Your task to perform on an android device: Open privacy settings Image 0: 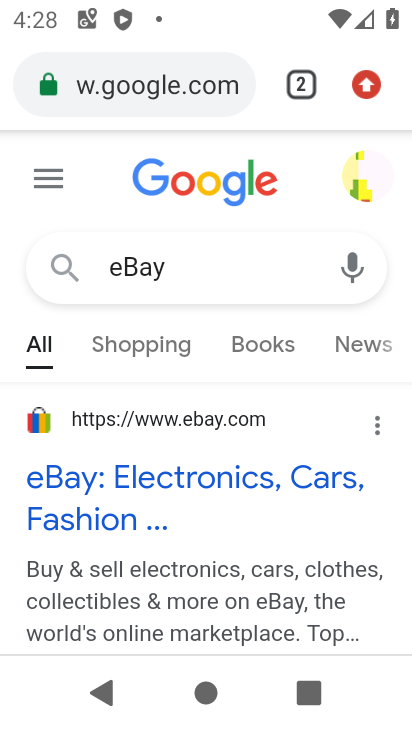
Step 0: press home button
Your task to perform on an android device: Open privacy settings Image 1: 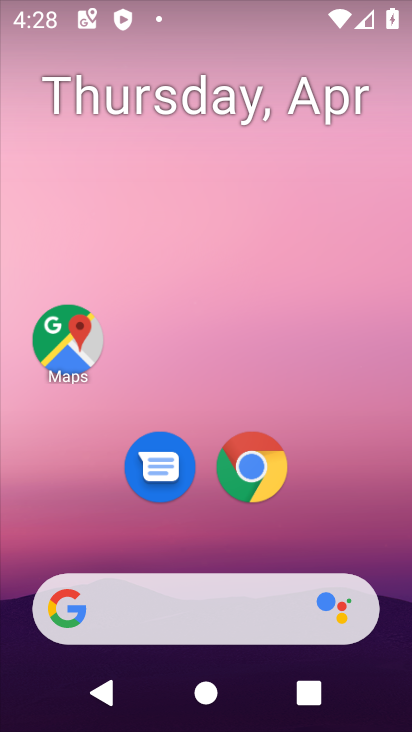
Step 1: drag from (230, 521) to (265, 1)
Your task to perform on an android device: Open privacy settings Image 2: 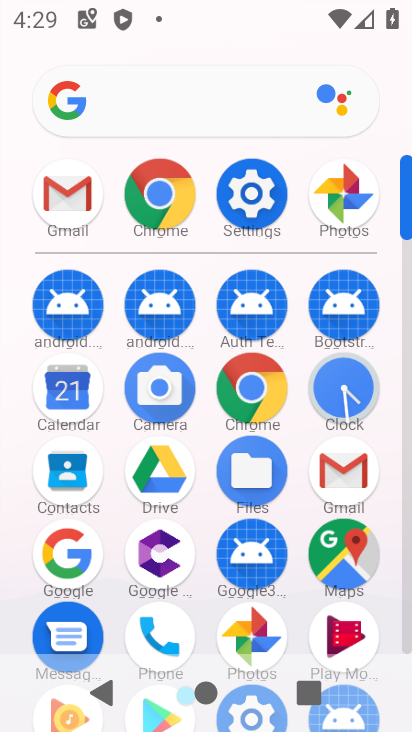
Step 2: click (258, 194)
Your task to perform on an android device: Open privacy settings Image 3: 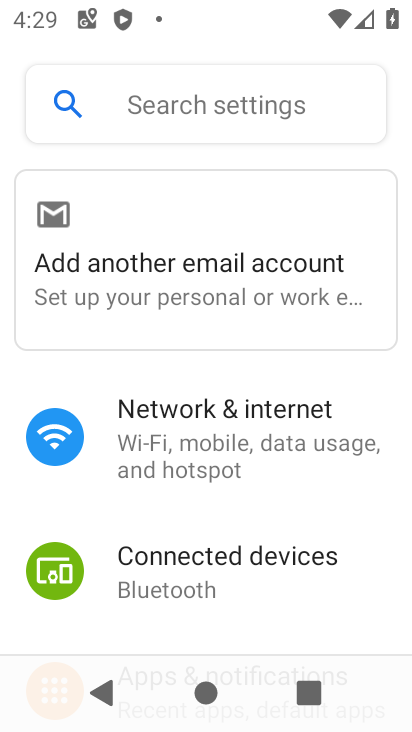
Step 3: drag from (204, 532) to (276, 88)
Your task to perform on an android device: Open privacy settings Image 4: 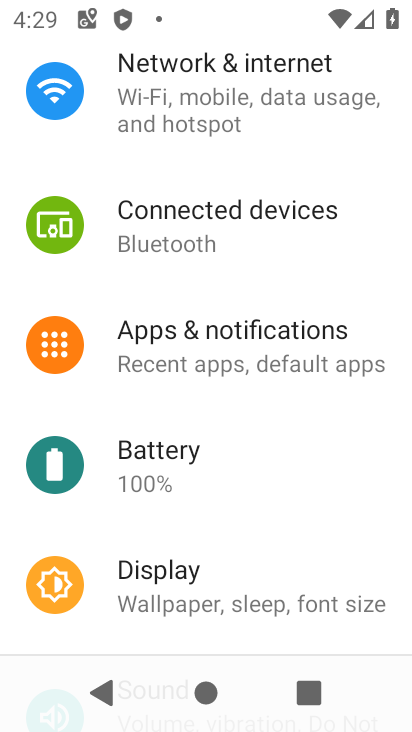
Step 4: drag from (208, 516) to (259, 226)
Your task to perform on an android device: Open privacy settings Image 5: 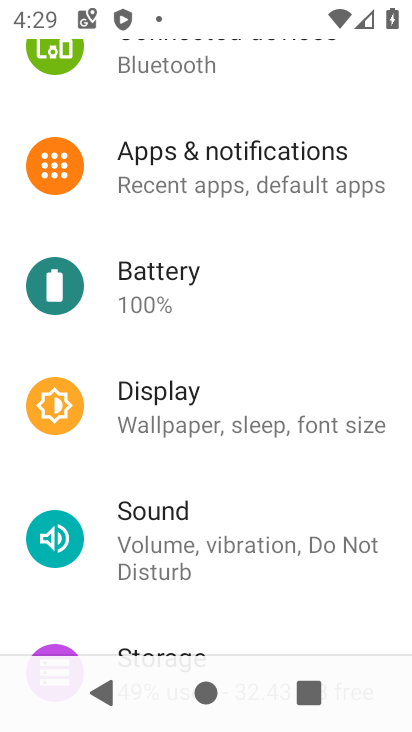
Step 5: drag from (189, 535) to (248, 219)
Your task to perform on an android device: Open privacy settings Image 6: 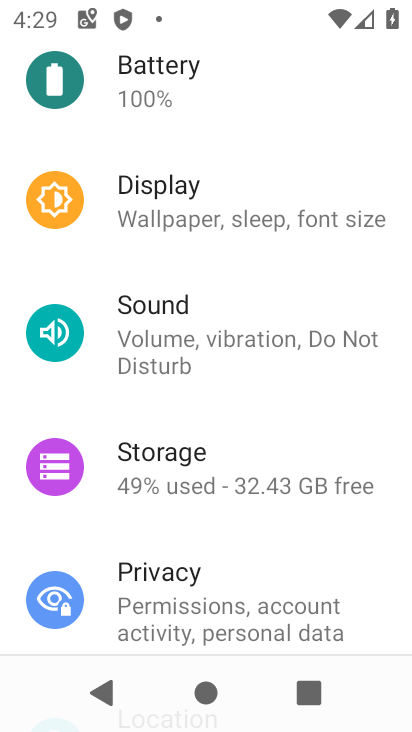
Step 6: click (141, 591)
Your task to perform on an android device: Open privacy settings Image 7: 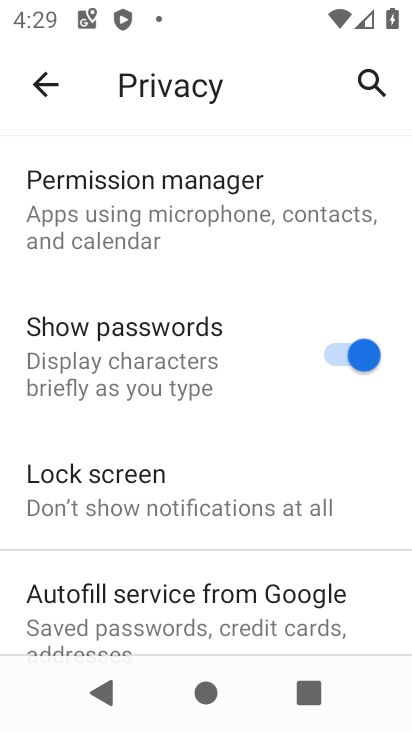
Step 7: task complete